Your task to perform on an android device: Open sound settings Image 0: 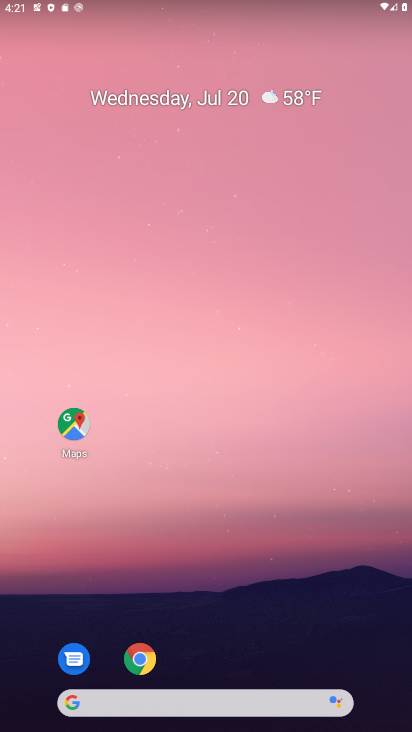
Step 0: drag from (231, 626) to (170, 198)
Your task to perform on an android device: Open sound settings Image 1: 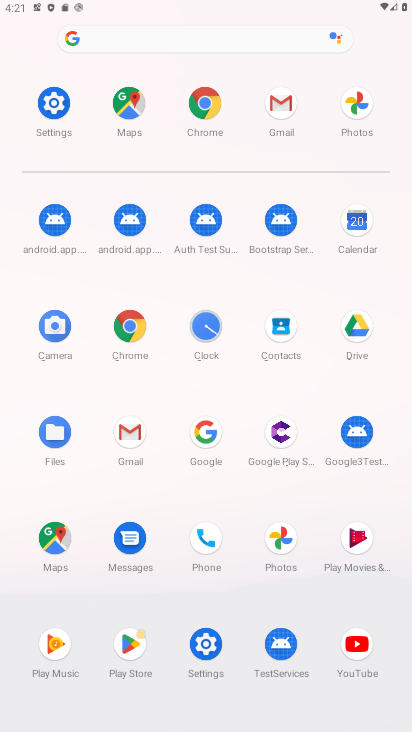
Step 1: click (52, 103)
Your task to perform on an android device: Open sound settings Image 2: 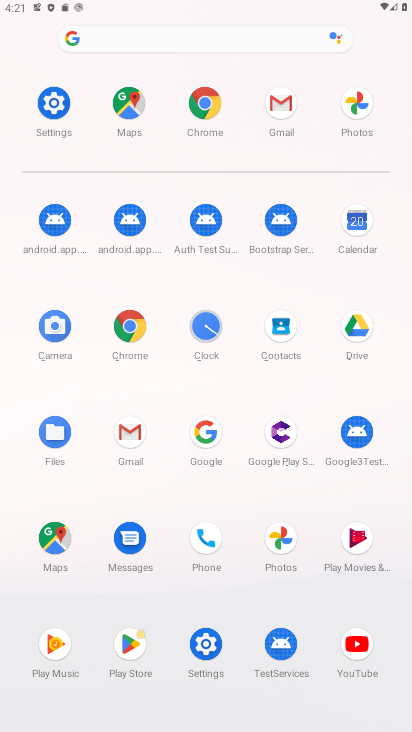
Step 2: click (52, 103)
Your task to perform on an android device: Open sound settings Image 3: 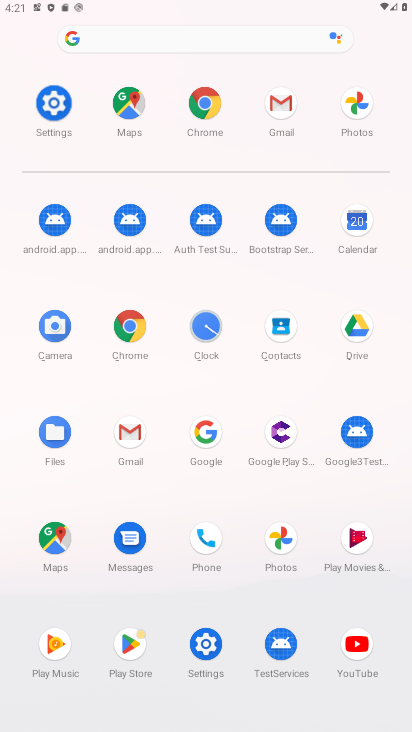
Step 3: click (52, 103)
Your task to perform on an android device: Open sound settings Image 4: 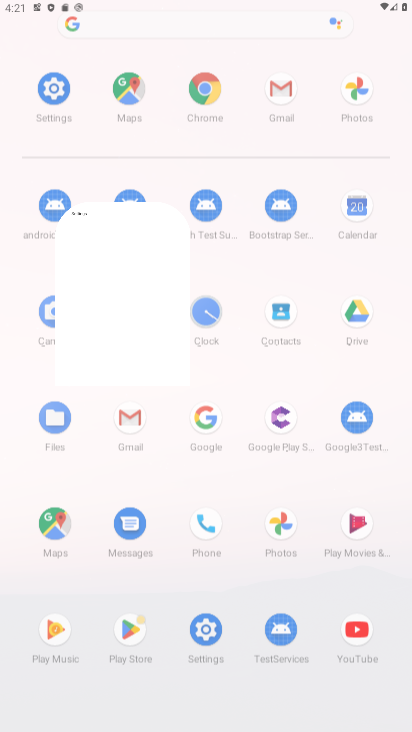
Step 4: click (52, 103)
Your task to perform on an android device: Open sound settings Image 5: 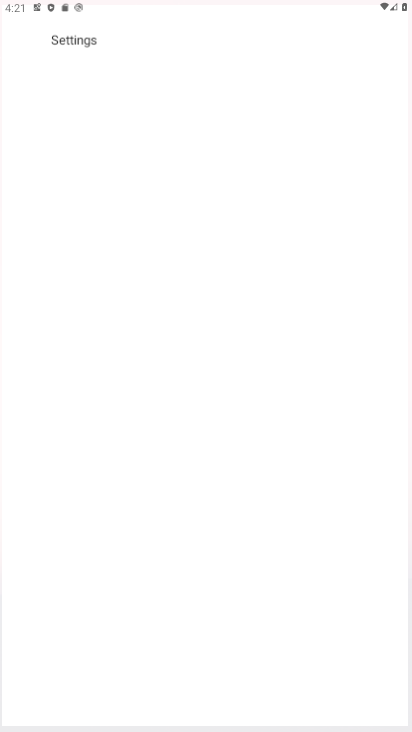
Step 5: click (52, 103)
Your task to perform on an android device: Open sound settings Image 6: 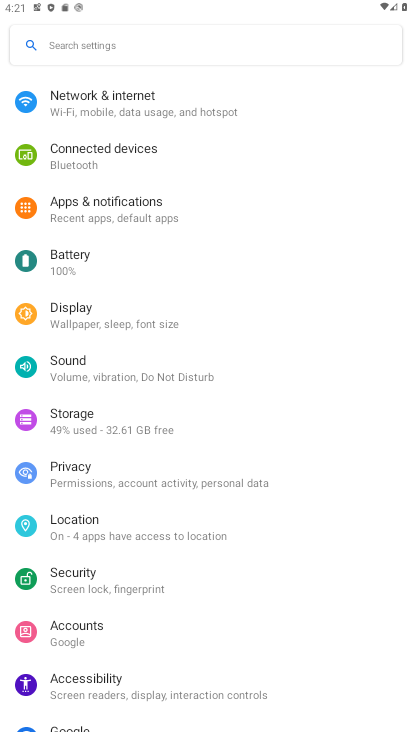
Step 6: click (52, 103)
Your task to perform on an android device: Open sound settings Image 7: 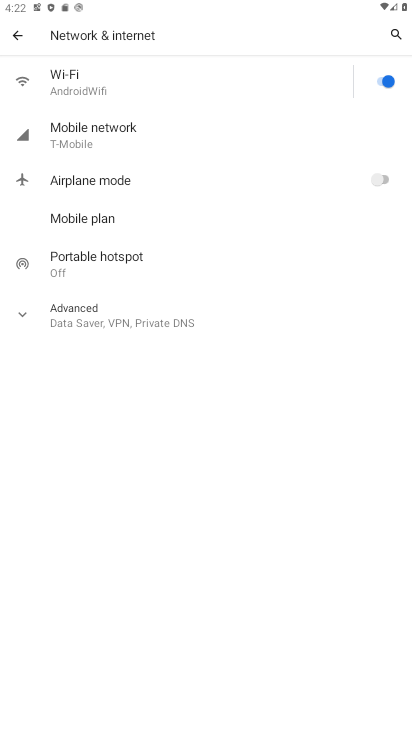
Step 7: click (9, 37)
Your task to perform on an android device: Open sound settings Image 8: 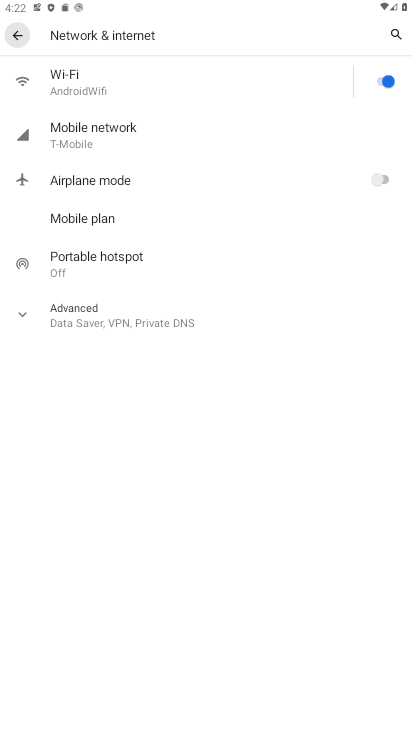
Step 8: click (9, 37)
Your task to perform on an android device: Open sound settings Image 9: 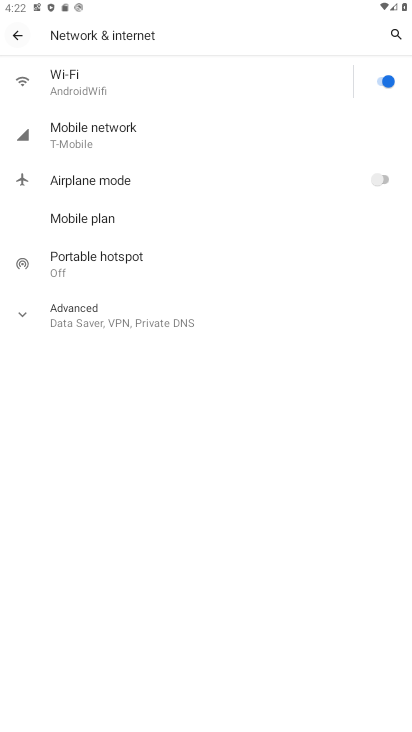
Step 9: click (9, 37)
Your task to perform on an android device: Open sound settings Image 10: 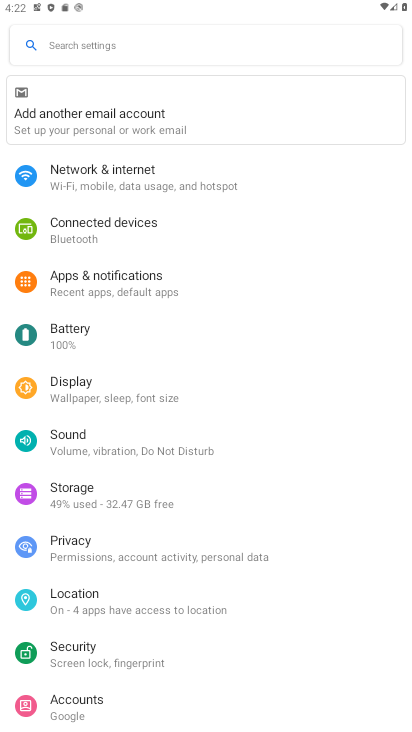
Step 10: click (75, 445)
Your task to perform on an android device: Open sound settings Image 11: 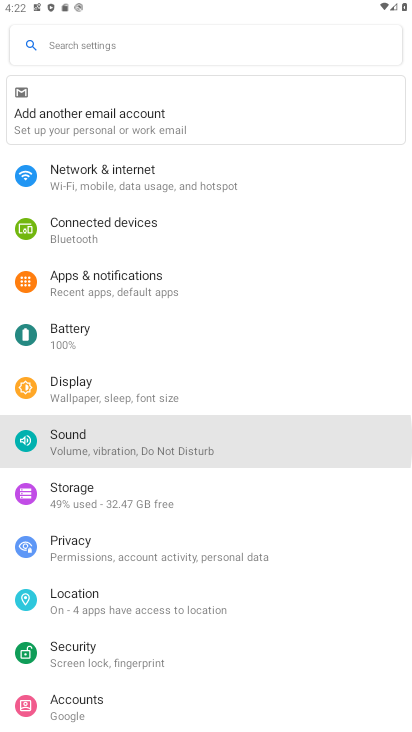
Step 11: click (75, 445)
Your task to perform on an android device: Open sound settings Image 12: 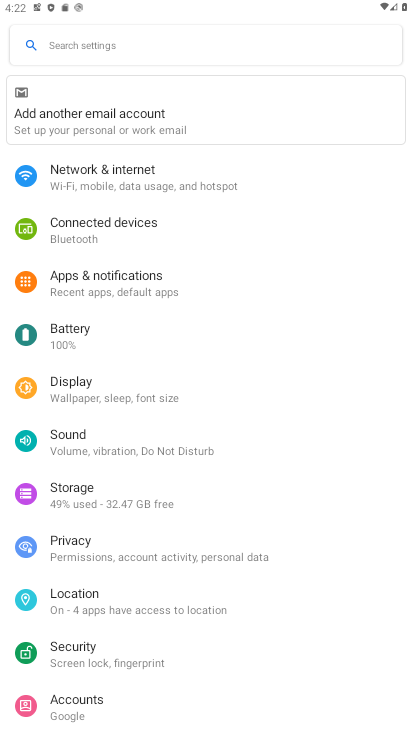
Step 12: click (75, 445)
Your task to perform on an android device: Open sound settings Image 13: 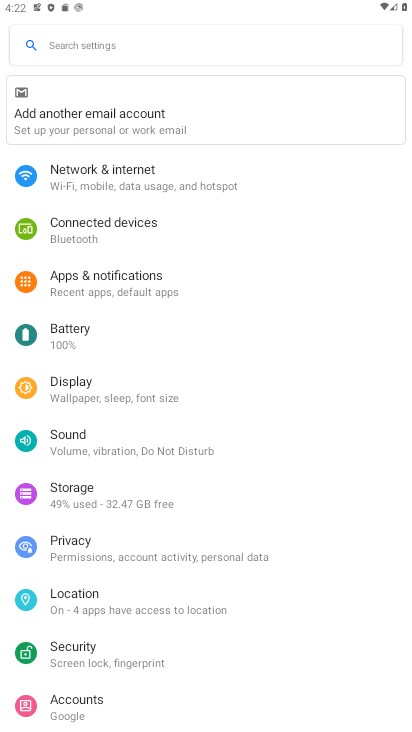
Step 13: click (75, 445)
Your task to perform on an android device: Open sound settings Image 14: 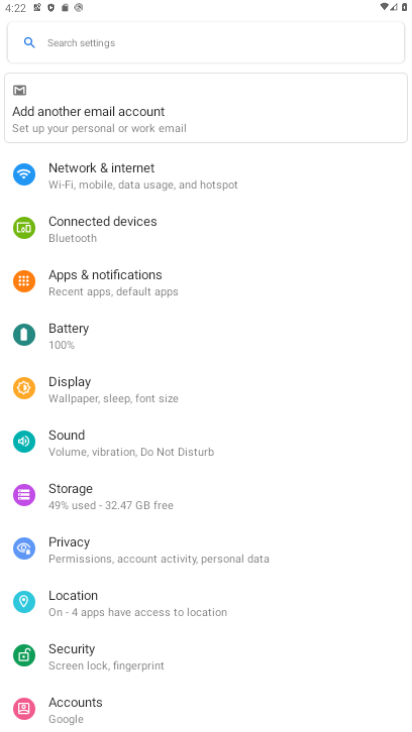
Step 14: click (75, 445)
Your task to perform on an android device: Open sound settings Image 15: 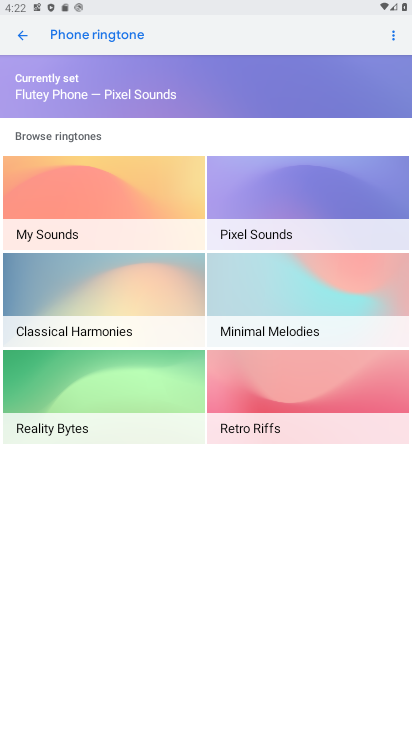
Step 15: click (22, 36)
Your task to perform on an android device: Open sound settings Image 16: 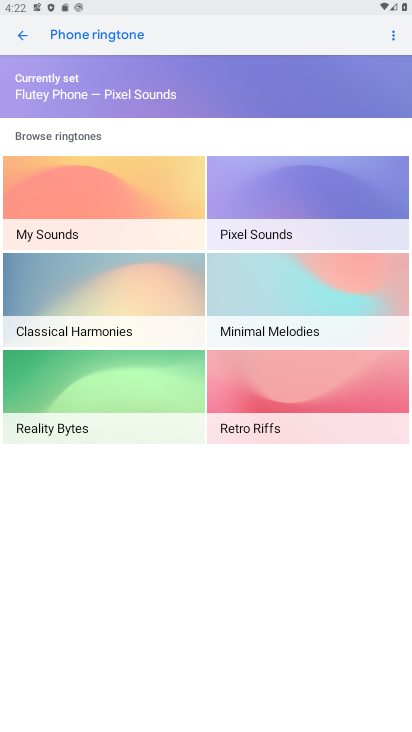
Step 16: click (22, 36)
Your task to perform on an android device: Open sound settings Image 17: 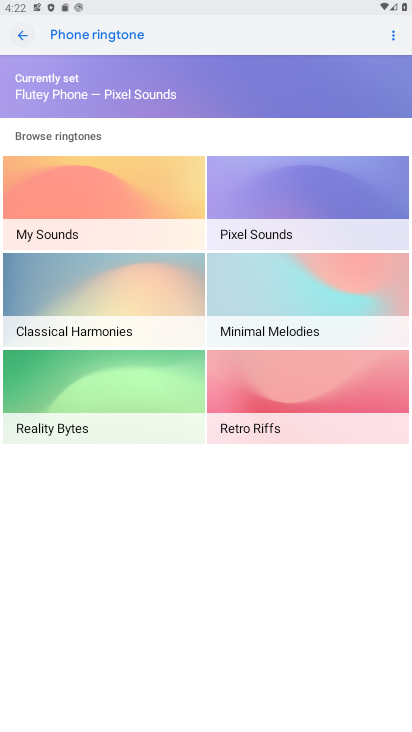
Step 17: click (23, 35)
Your task to perform on an android device: Open sound settings Image 18: 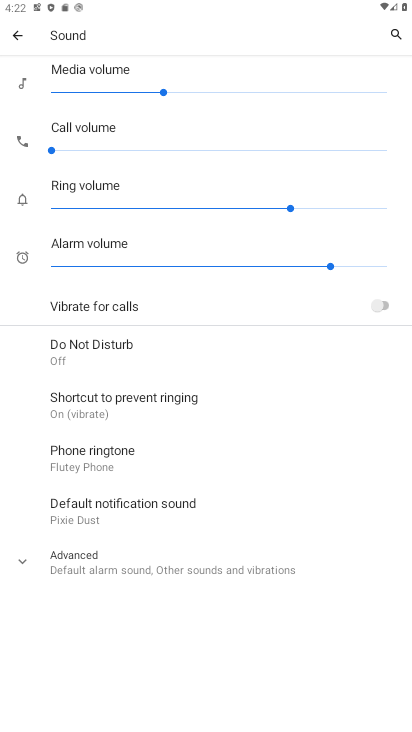
Step 18: task complete